Your task to perform on an android device: Open settings on Google Maps Image 0: 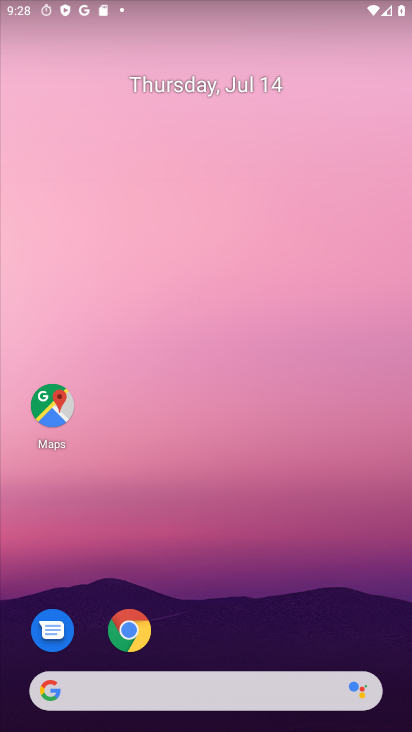
Step 0: click (51, 404)
Your task to perform on an android device: Open settings on Google Maps Image 1: 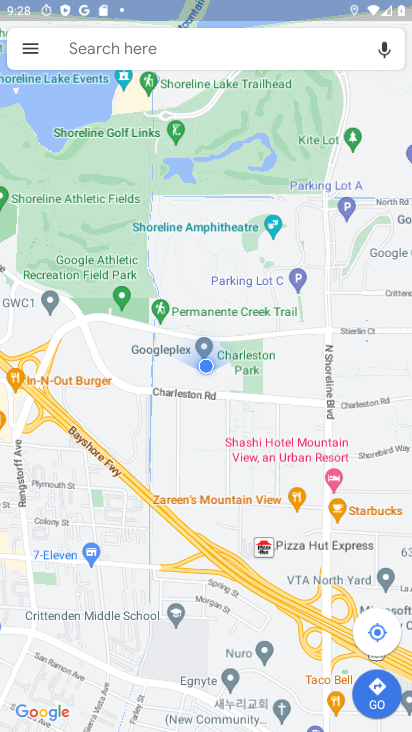
Step 1: click (25, 51)
Your task to perform on an android device: Open settings on Google Maps Image 2: 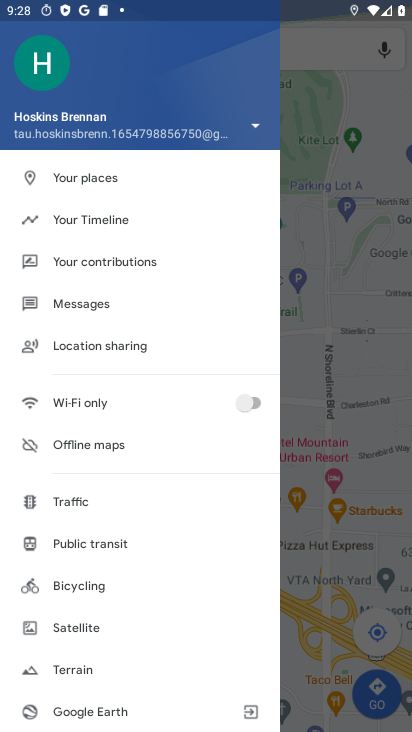
Step 2: drag from (173, 725) to (189, 558)
Your task to perform on an android device: Open settings on Google Maps Image 3: 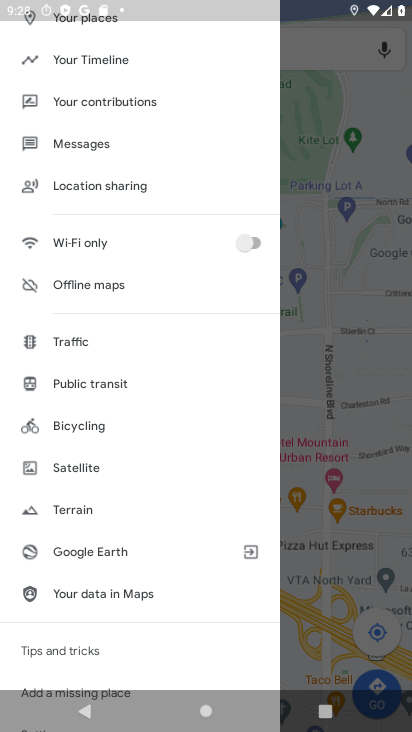
Step 3: drag from (109, 660) to (121, 405)
Your task to perform on an android device: Open settings on Google Maps Image 4: 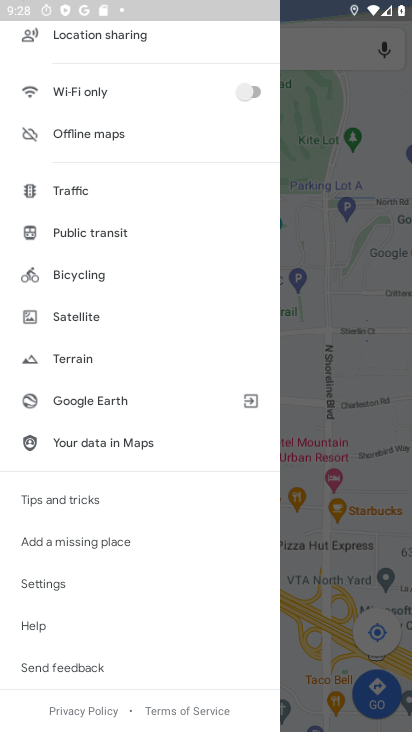
Step 4: click (72, 583)
Your task to perform on an android device: Open settings on Google Maps Image 5: 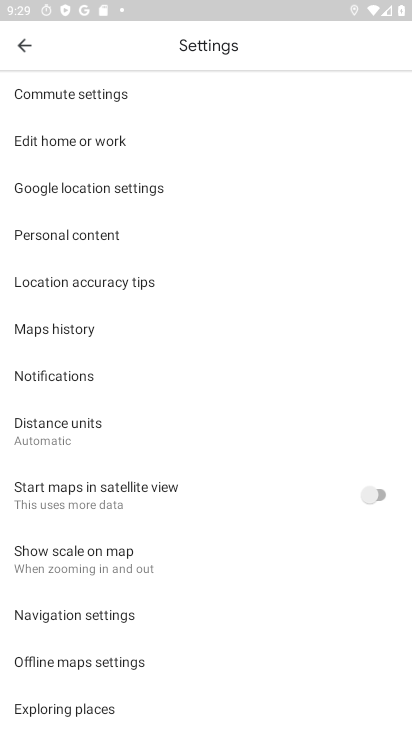
Step 5: task complete